Your task to perform on an android device: open app "Grab" (install if not already installed) Image 0: 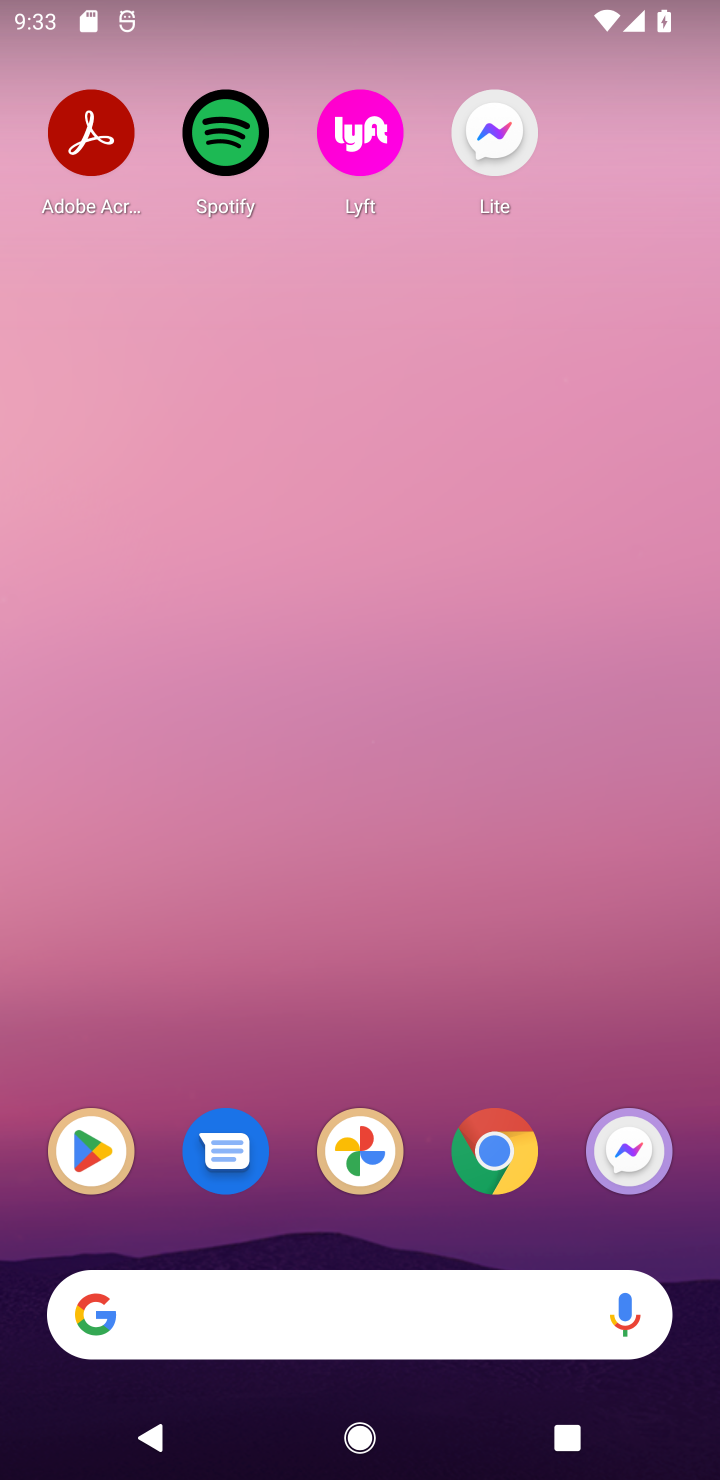
Step 0: press home button
Your task to perform on an android device: open app "Grab" (install if not already installed) Image 1: 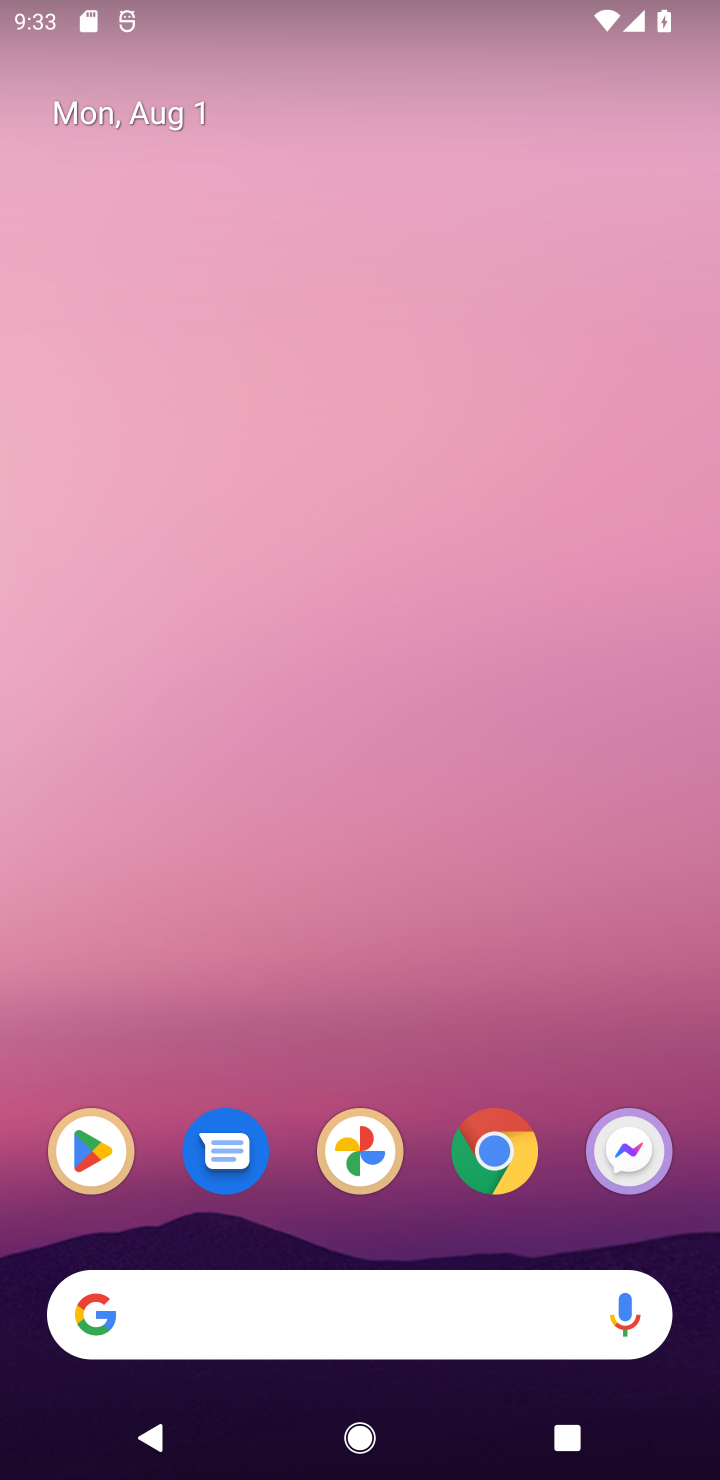
Step 1: drag from (283, 1100) to (306, 319)
Your task to perform on an android device: open app "Grab" (install if not already installed) Image 2: 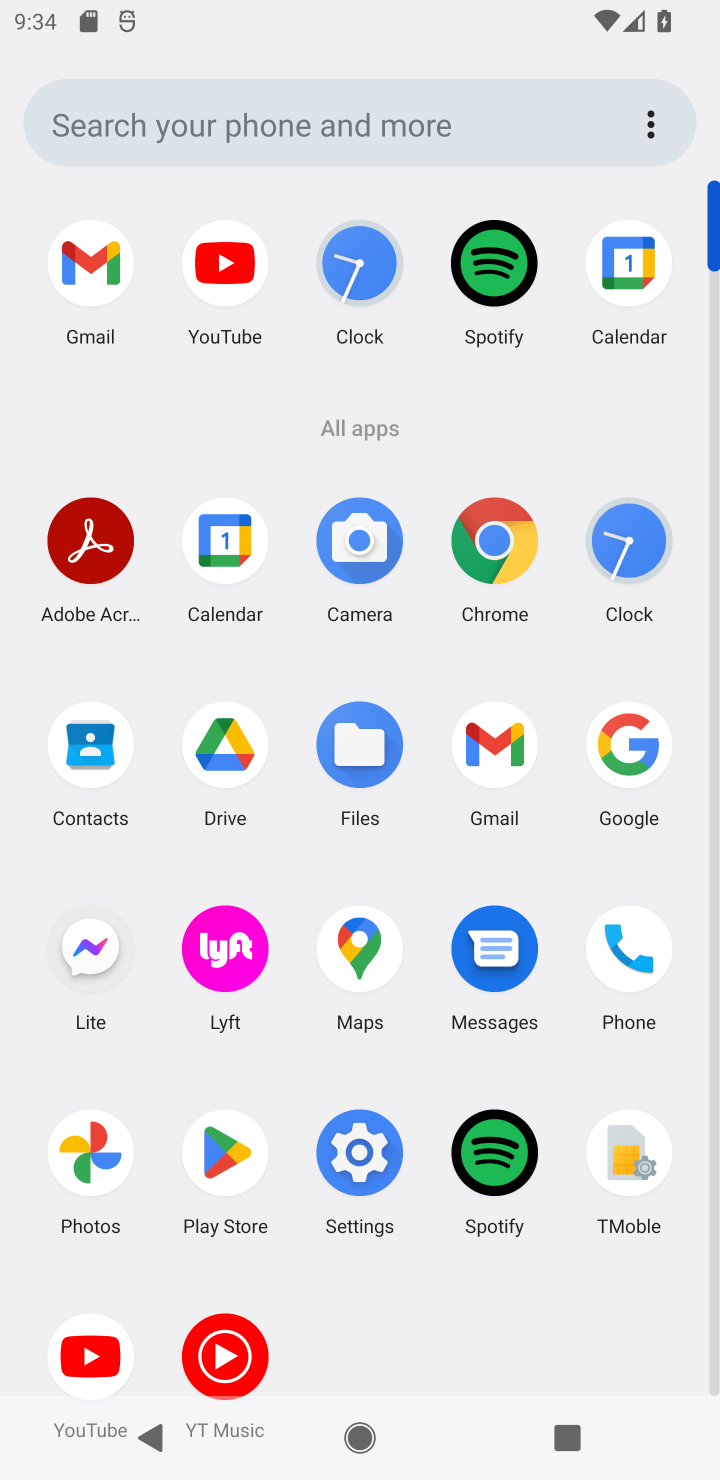
Step 2: click (213, 1168)
Your task to perform on an android device: open app "Grab" (install if not already installed) Image 3: 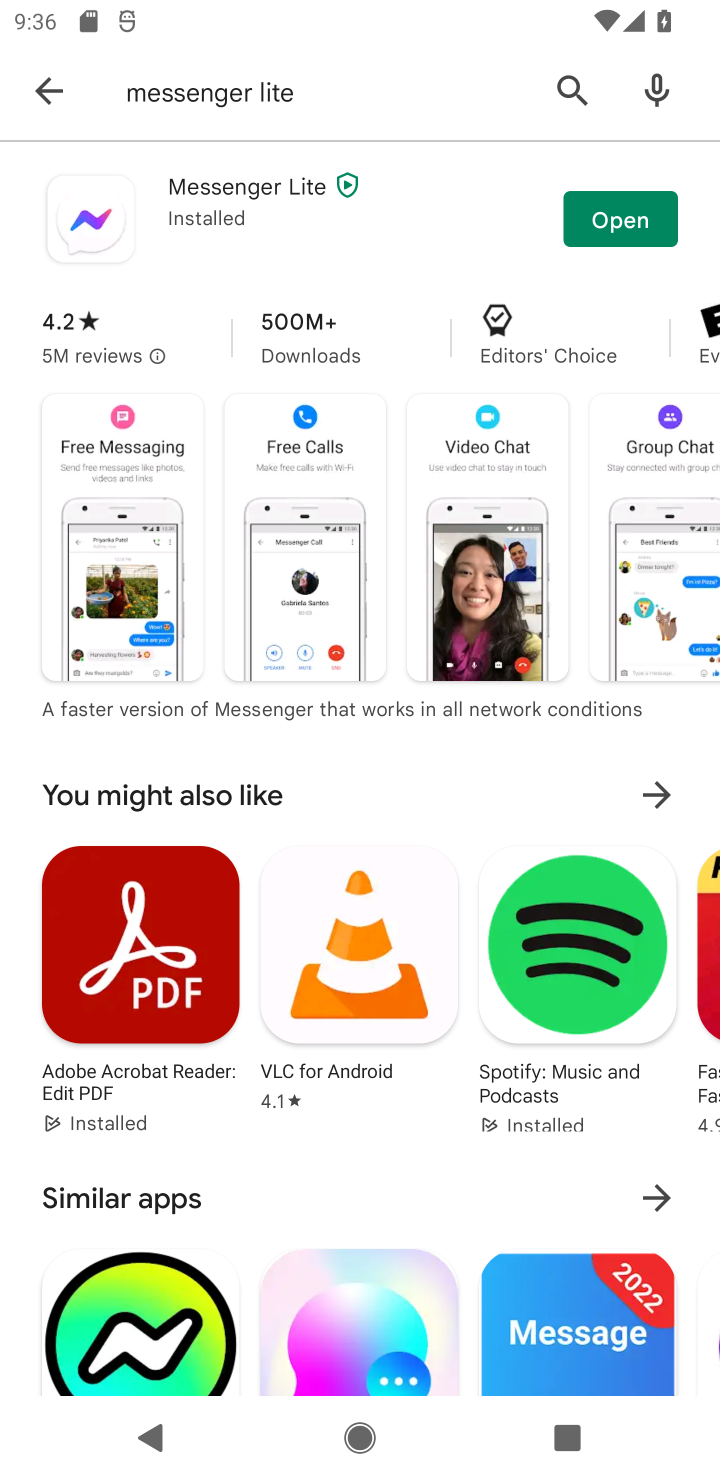
Step 3: click (546, 89)
Your task to perform on an android device: open app "Grab" (install if not already installed) Image 4: 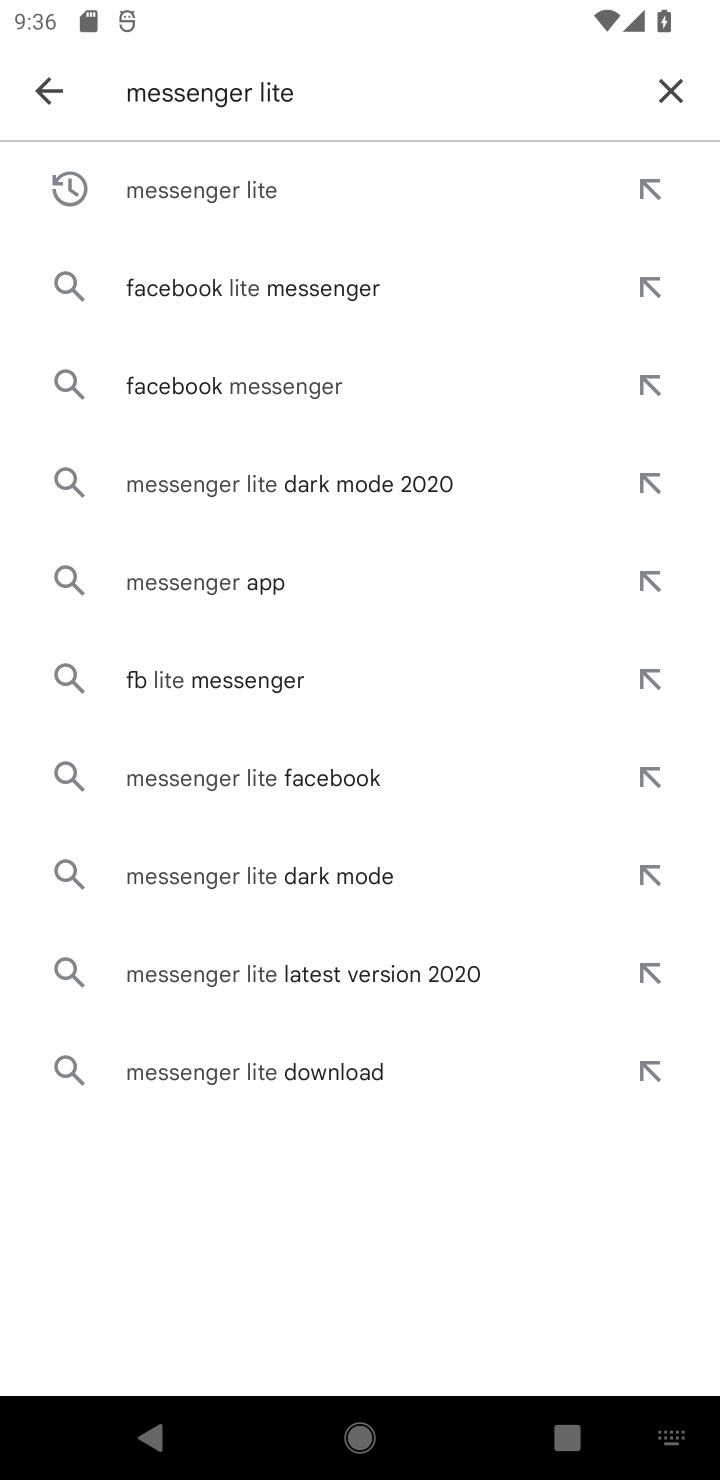
Step 4: click (659, 96)
Your task to perform on an android device: open app "Grab" (install if not already installed) Image 5: 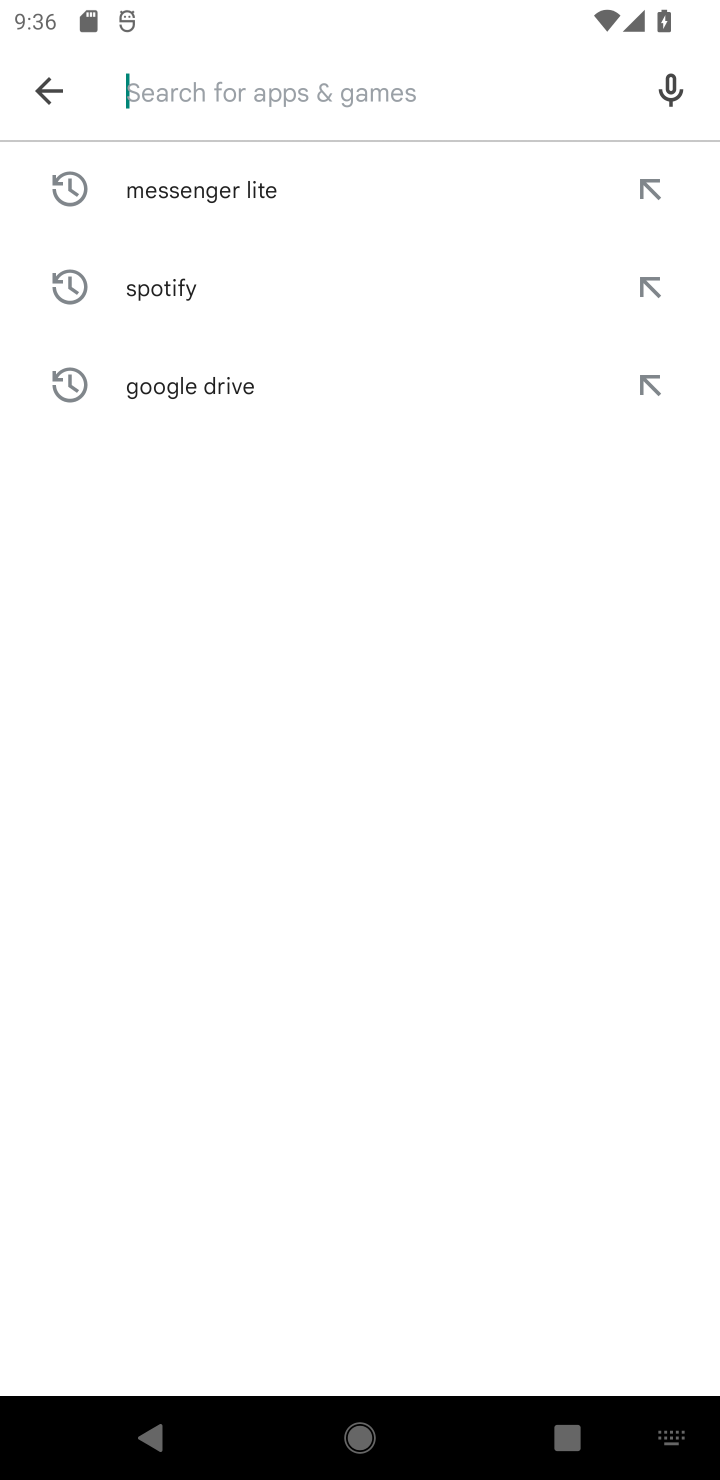
Step 5: type "Grab"
Your task to perform on an android device: open app "Grab" (install if not already installed) Image 6: 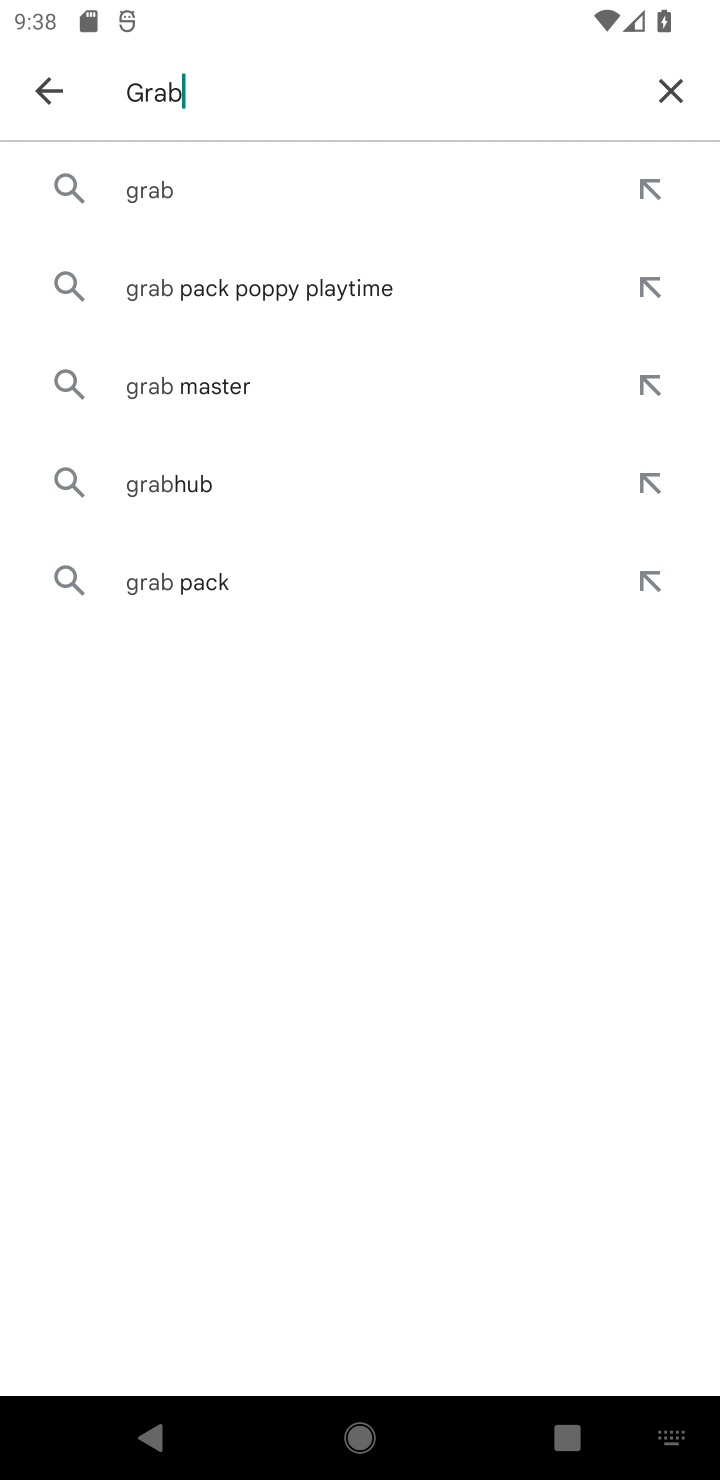
Step 6: click (195, 179)
Your task to perform on an android device: open app "Grab" (install if not already installed) Image 7: 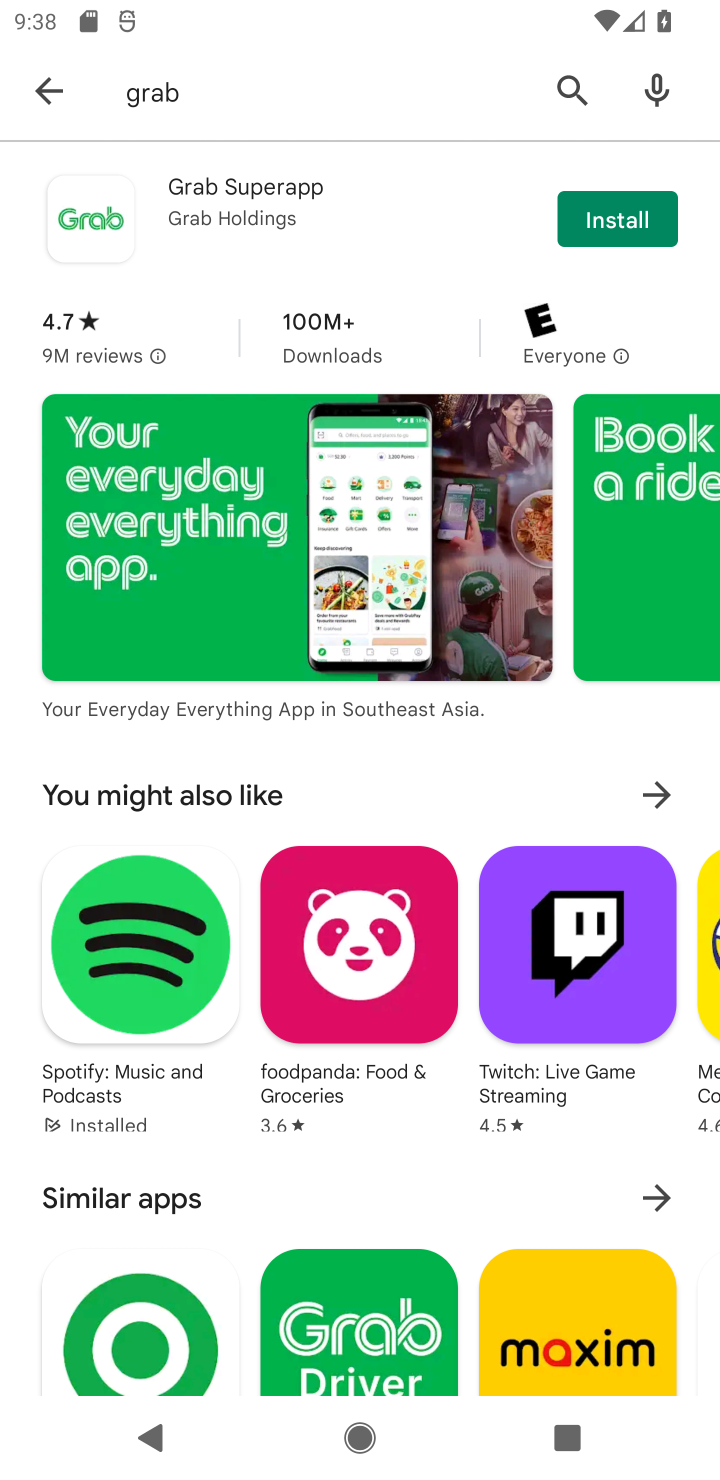
Step 7: click (652, 211)
Your task to perform on an android device: open app "Grab" (install if not already installed) Image 8: 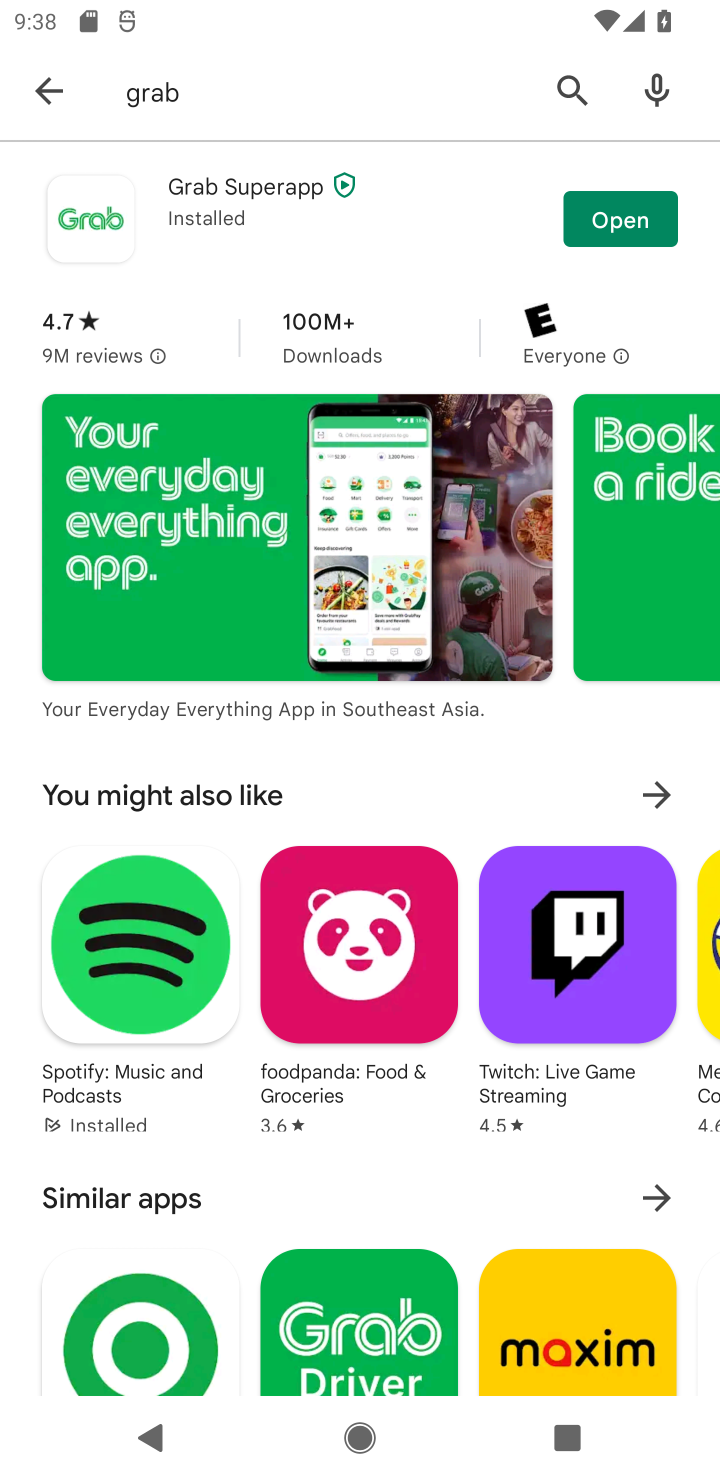
Step 8: click (642, 209)
Your task to perform on an android device: open app "Grab" (install if not already installed) Image 9: 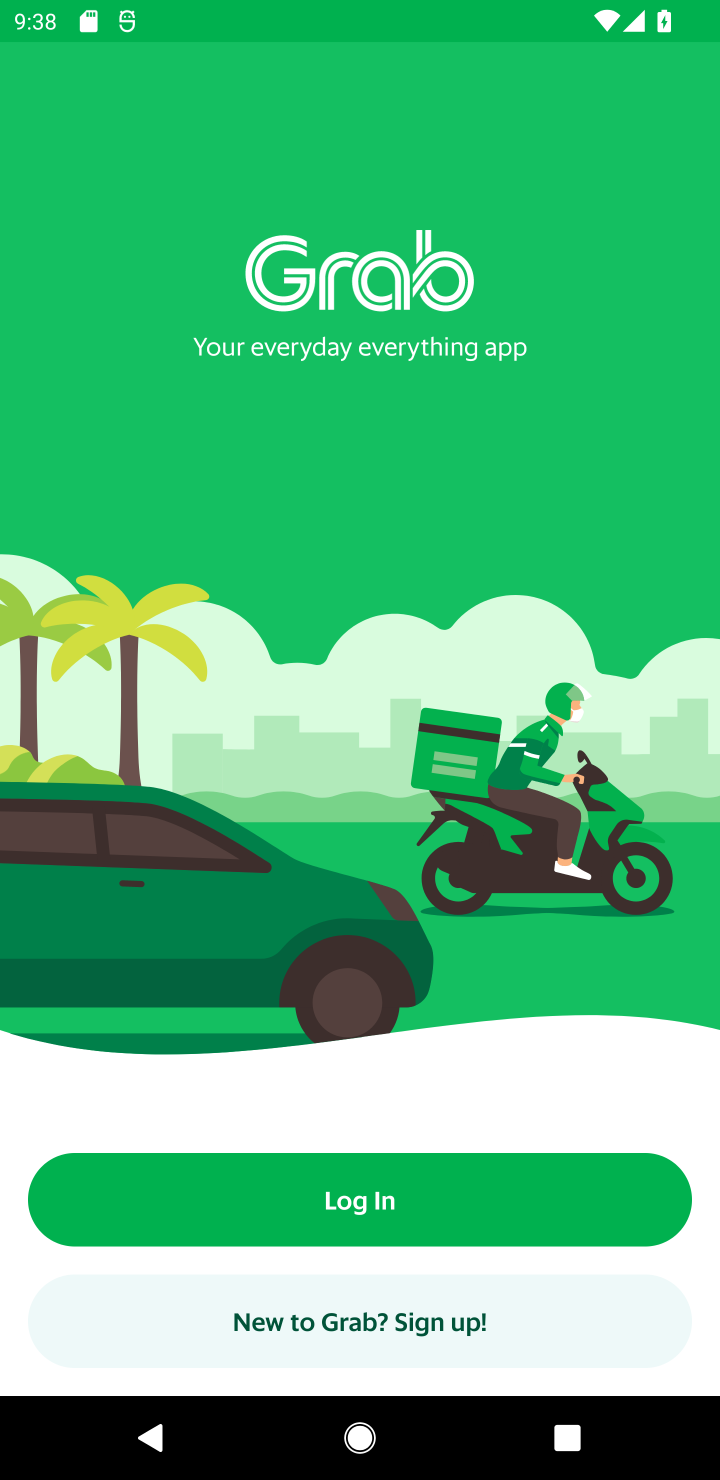
Step 9: task complete